Your task to perform on an android device: clear all cookies in the chrome app Image 0: 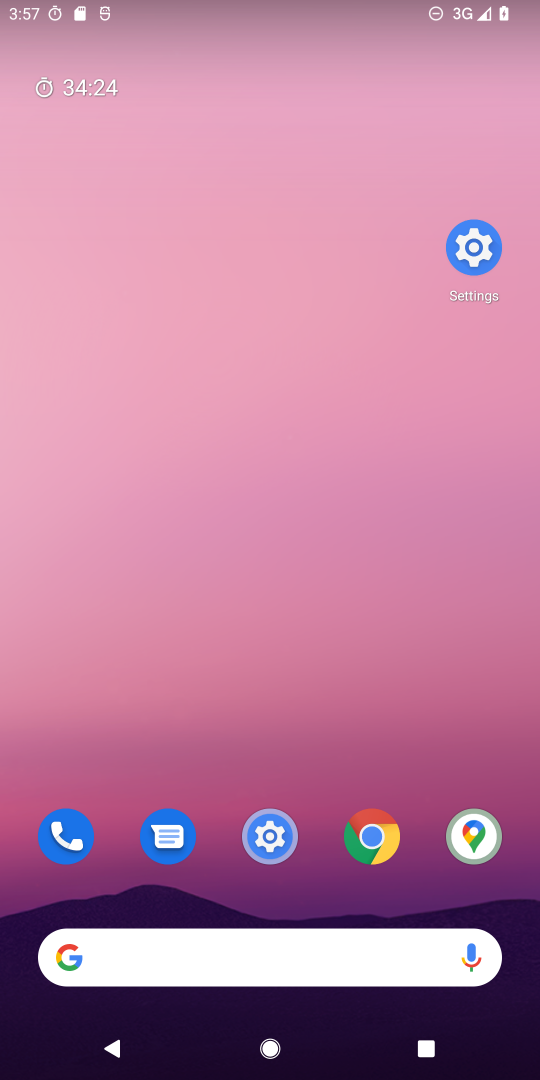
Step 0: click (378, 837)
Your task to perform on an android device: clear all cookies in the chrome app Image 1: 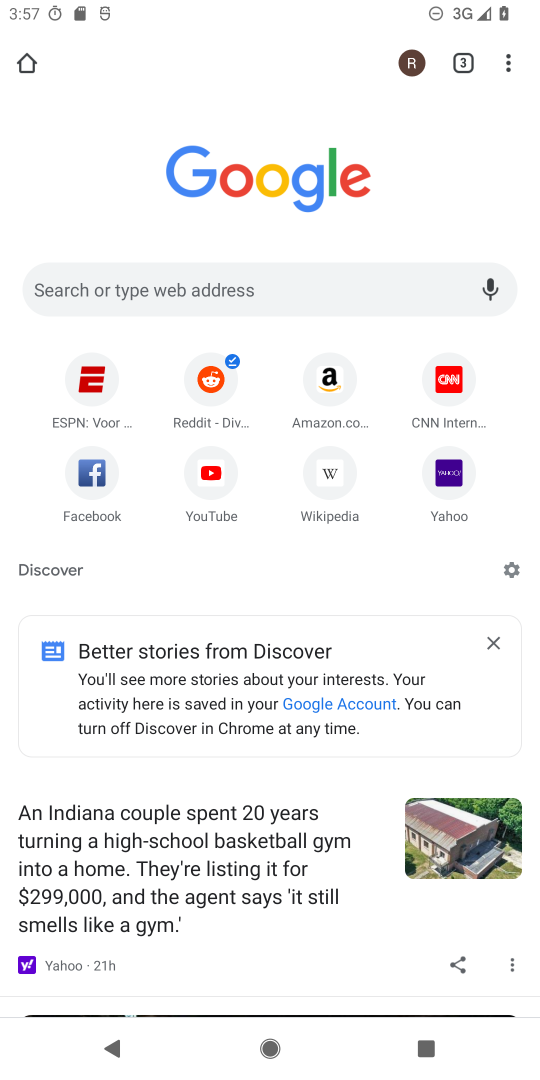
Step 1: click (512, 62)
Your task to perform on an android device: clear all cookies in the chrome app Image 2: 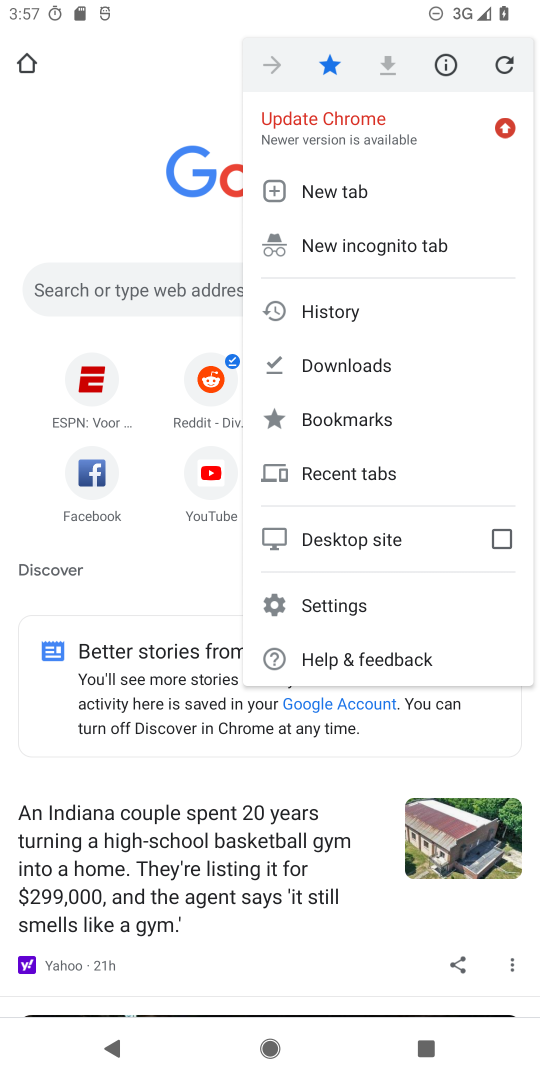
Step 2: click (334, 306)
Your task to perform on an android device: clear all cookies in the chrome app Image 3: 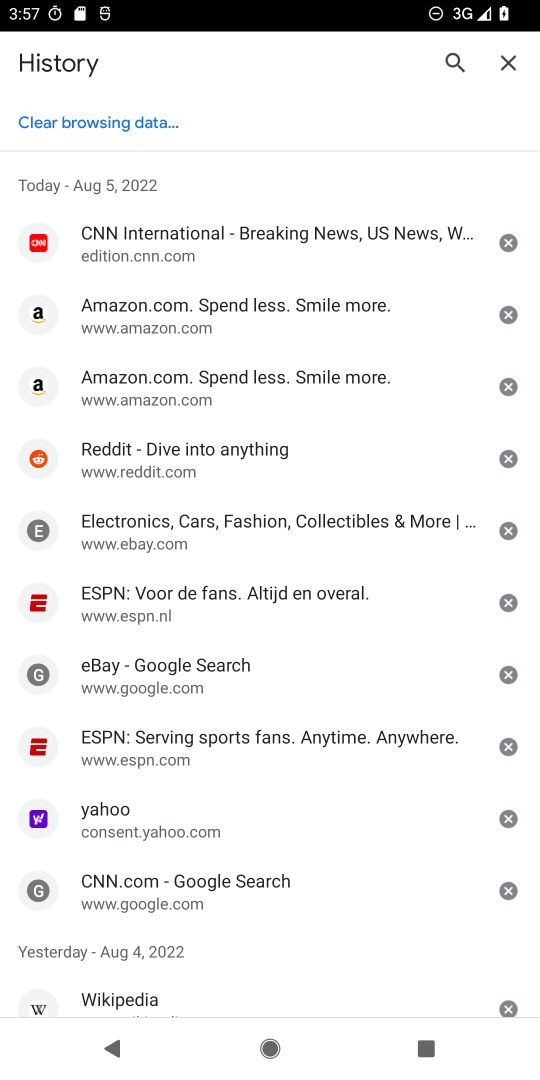
Step 3: click (97, 112)
Your task to perform on an android device: clear all cookies in the chrome app Image 4: 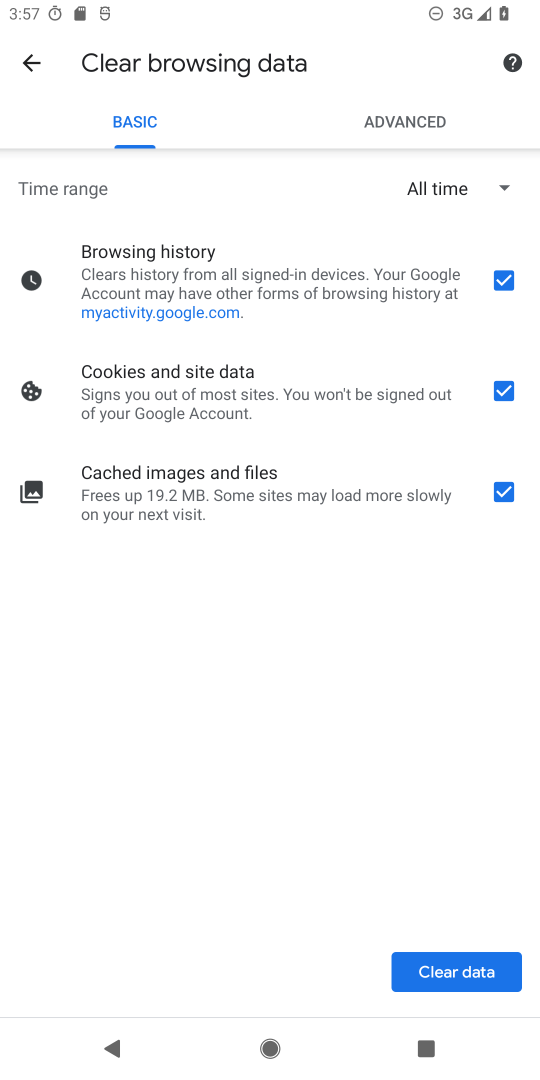
Step 4: click (497, 280)
Your task to perform on an android device: clear all cookies in the chrome app Image 5: 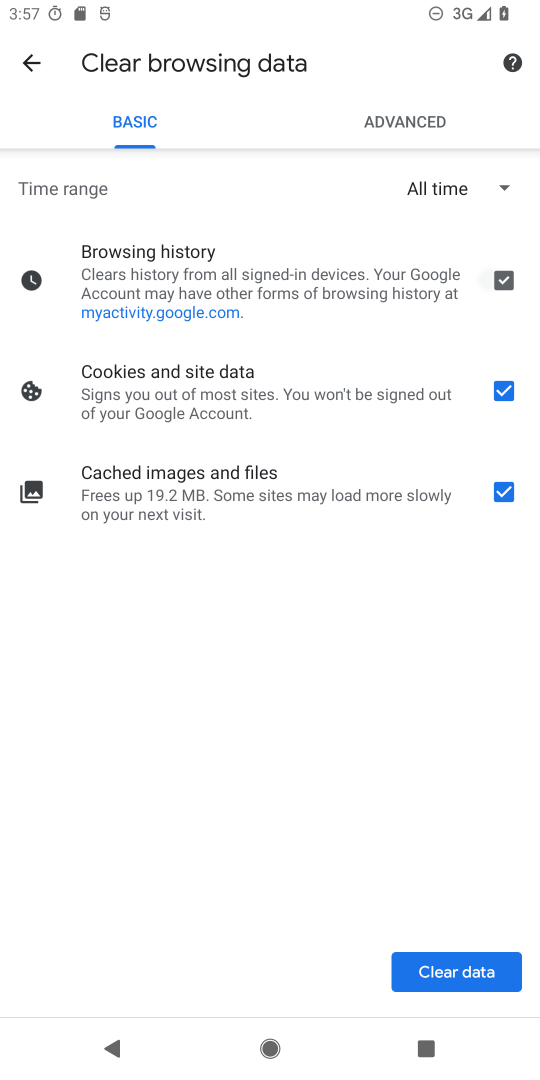
Step 5: click (503, 485)
Your task to perform on an android device: clear all cookies in the chrome app Image 6: 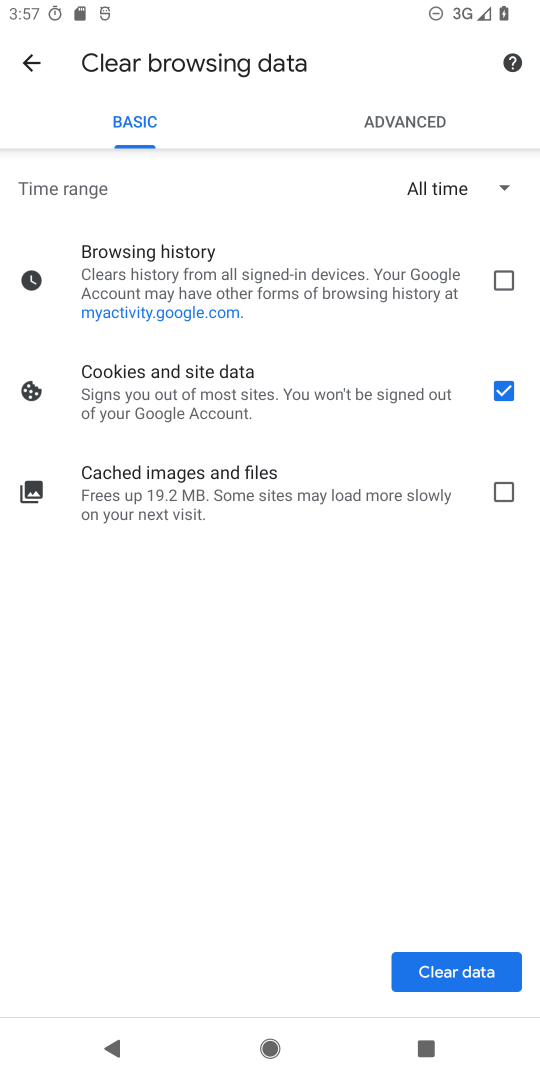
Step 6: click (458, 961)
Your task to perform on an android device: clear all cookies in the chrome app Image 7: 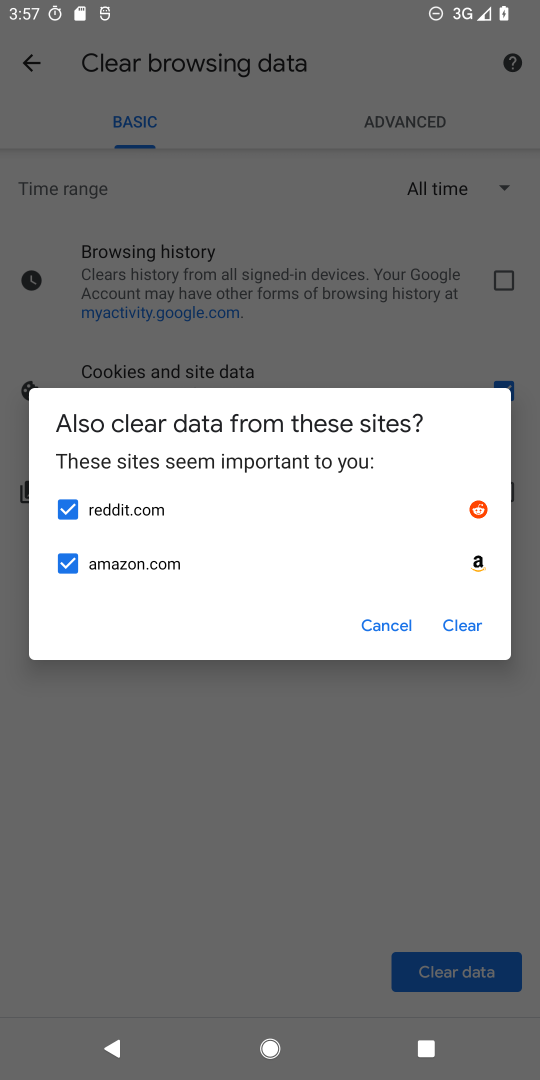
Step 7: click (464, 621)
Your task to perform on an android device: clear all cookies in the chrome app Image 8: 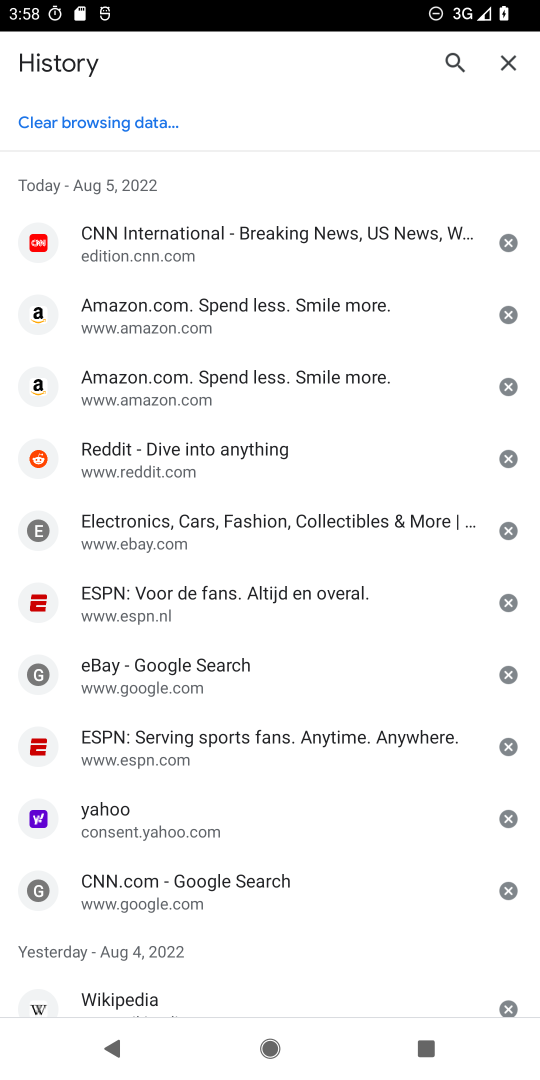
Step 8: task complete